Your task to perform on an android device: Open settings on Google Maps Image 0: 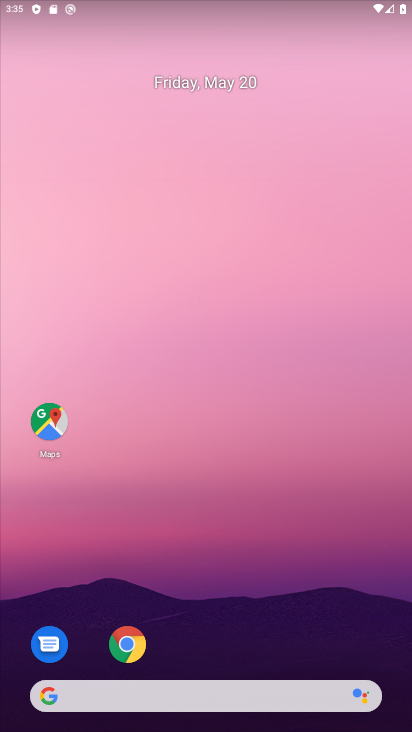
Step 0: click (43, 418)
Your task to perform on an android device: Open settings on Google Maps Image 1: 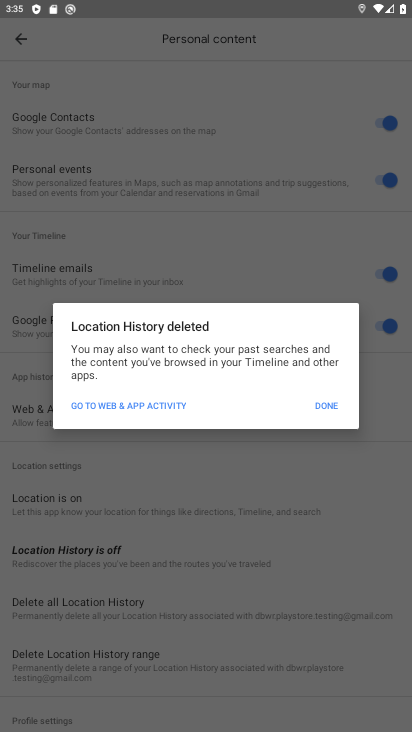
Step 1: task complete